Your task to perform on an android device: check data usage Image 0: 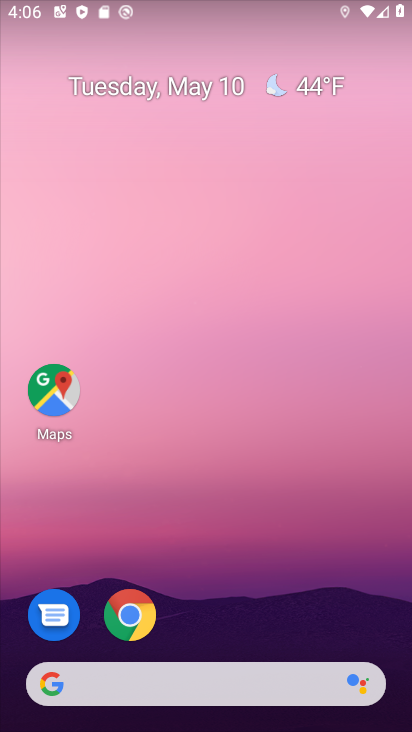
Step 0: drag from (206, 729) to (209, 84)
Your task to perform on an android device: check data usage Image 1: 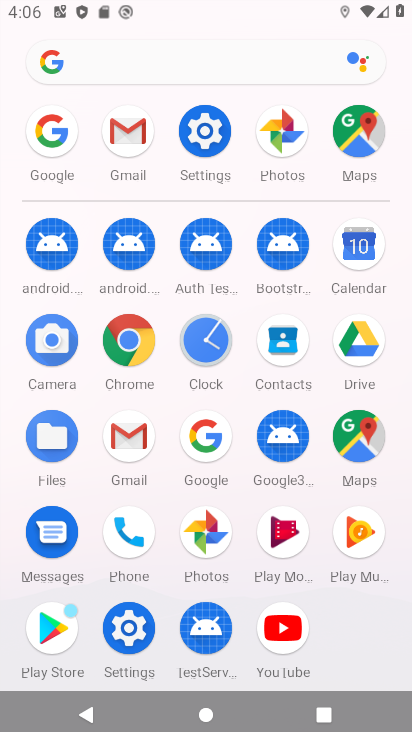
Step 1: click (201, 125)
Your task to perform on an android device: check data usage Image 2: 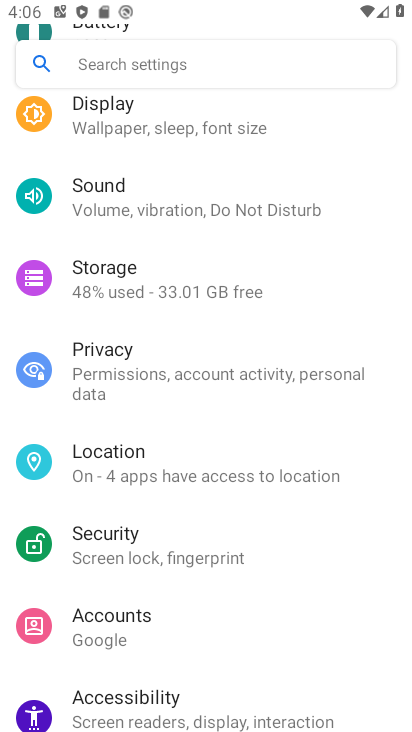
Step 2: drag from (211, 150) to (197, 613)
Your task to perform on an android device: check data usage Image 3: 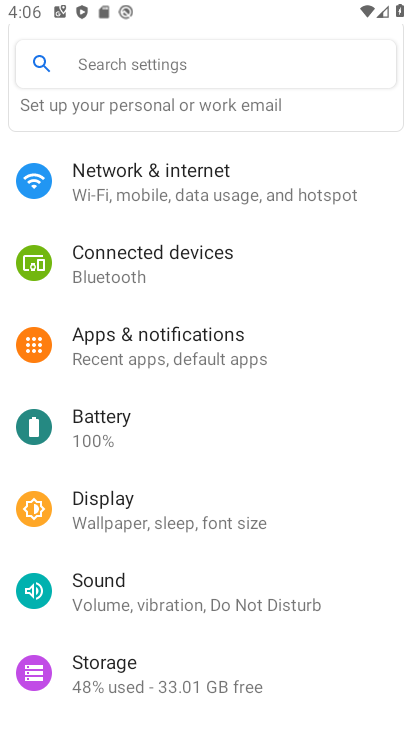
Step 3: drag from (133, 176) to (166, 484)
Your task to perform on an android device: check data usage Image 4: 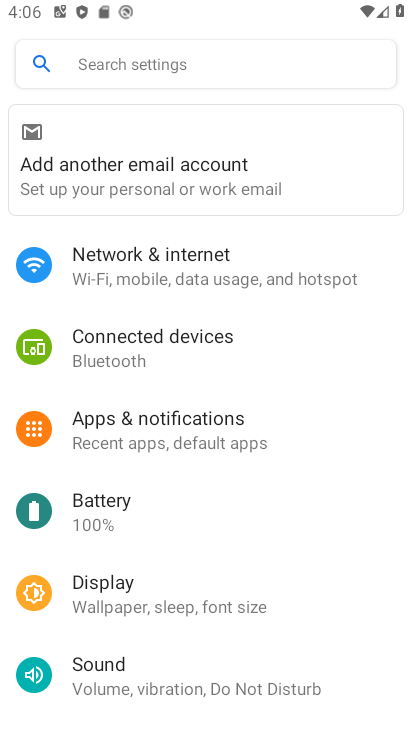
Step 4: click (145, 266)
Your task to perform on an android device: check data usage Image 5: 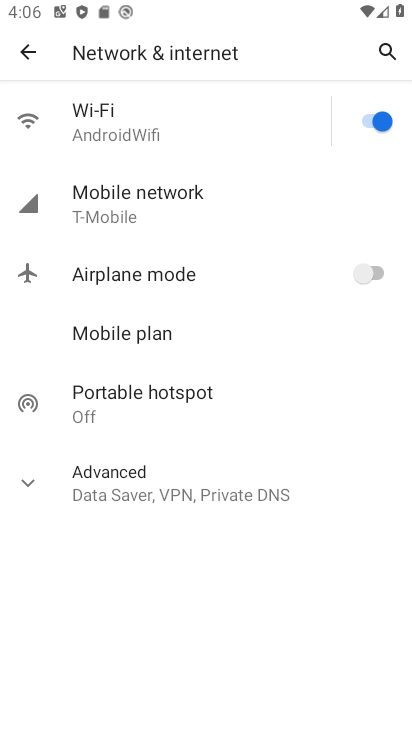
Step 5: click (120, 189)
Your task to perform on an android device: check data usage Image 6: 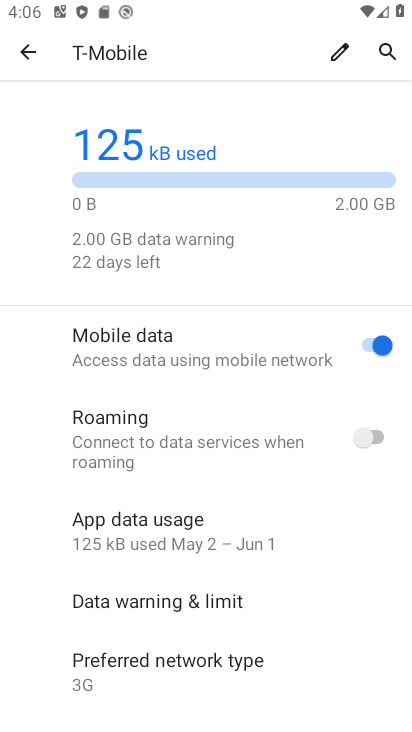
Step 6: click (143, 533)
Your task to perform on an android device: check data usage Image 7: 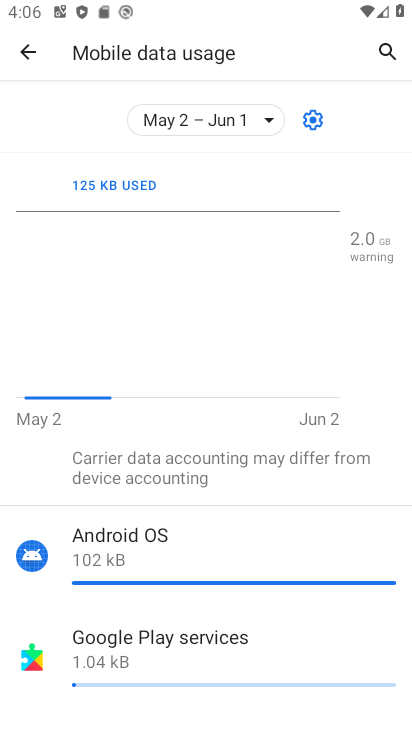
Step 7: task complete